Your task to perform on an android device: Show me the alarms in the clock app Image 0: 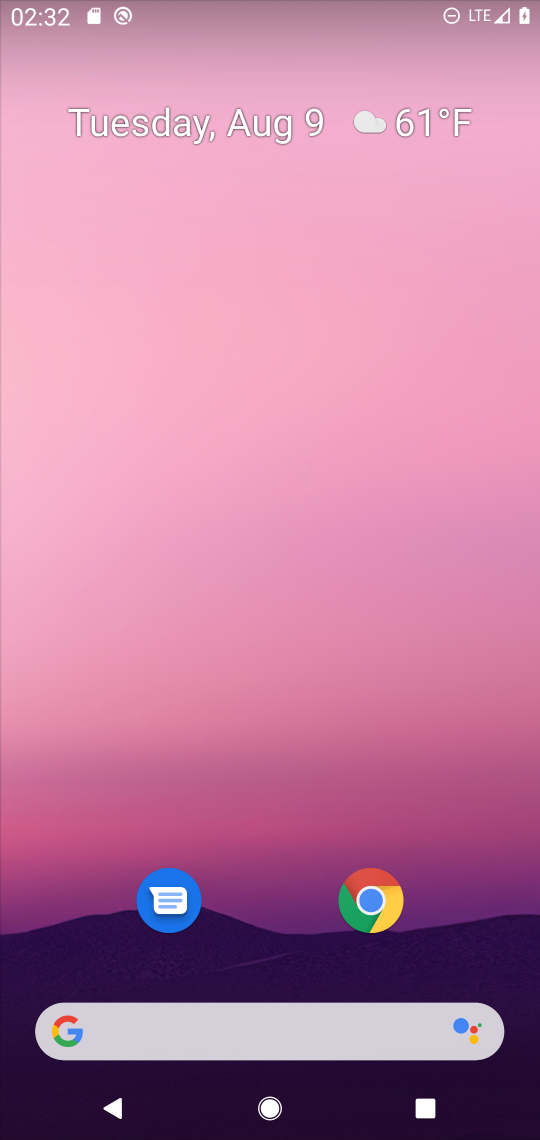
Step 0: press home button
Your task to perform on an android device: Show me the alarms in the clock app Image 1: 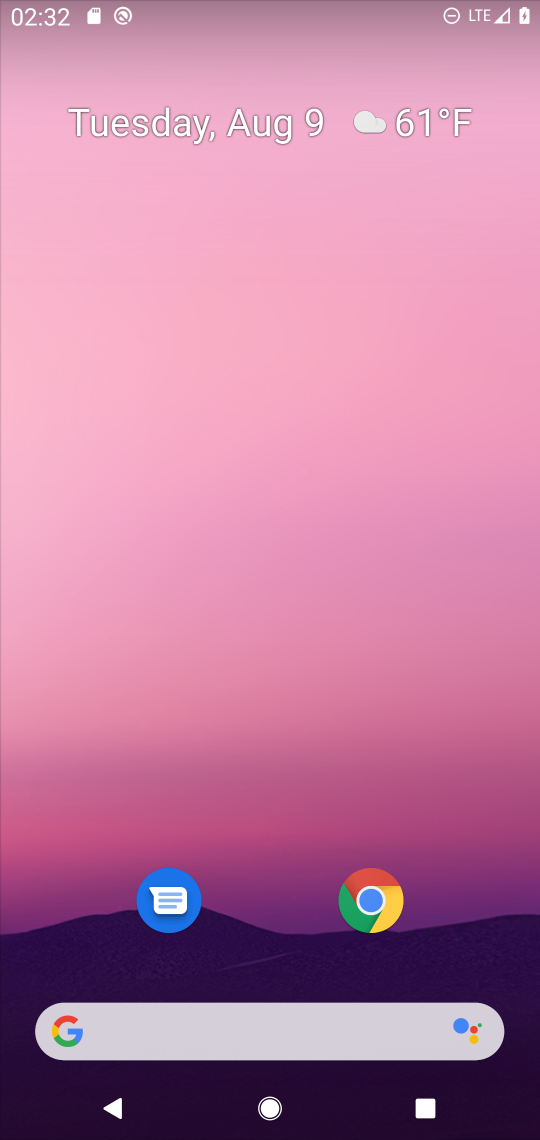
Step 1: drag from (278, 952) to (320, 239)
Your task to perform on an android device: Show me the alarms in the clock app Image 2: 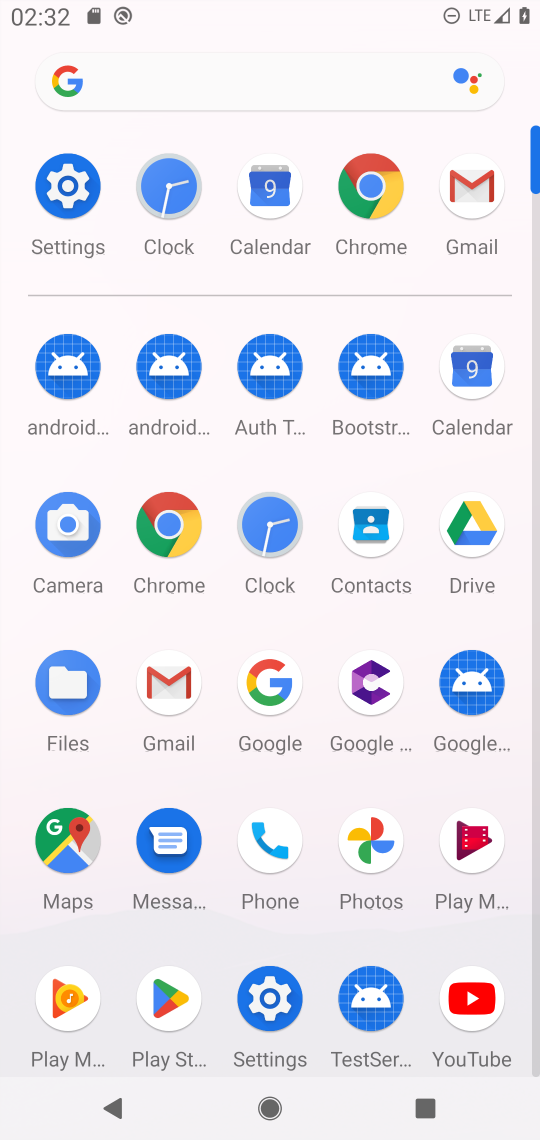
Step 2: click (269, 517)
Your task to perform on an android device: Show me the alarms in the clock app Image 3: 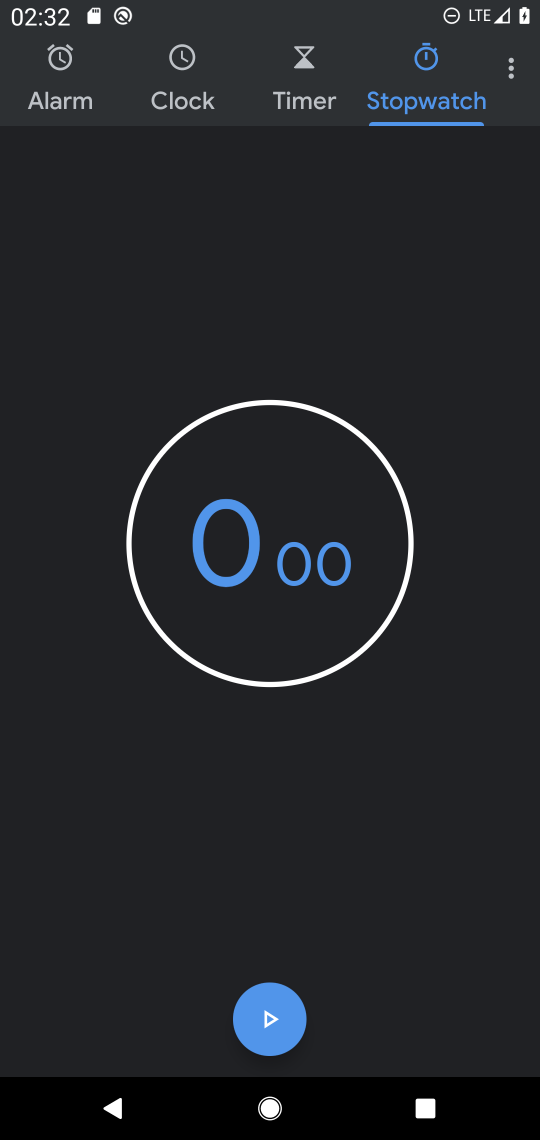
Step 3: click (60, 77)
Your task to perform on an android device: Show me the alarms in the clock app Image 4: 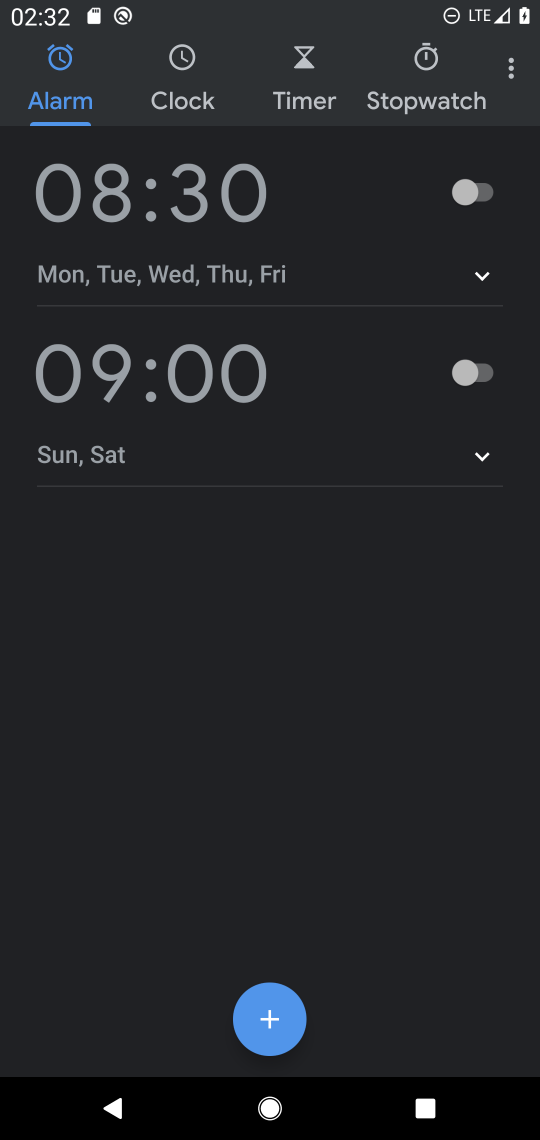
Step 4: task complete